Your task to perform on an android device: choose inbox layout in the gmail app Image 0: 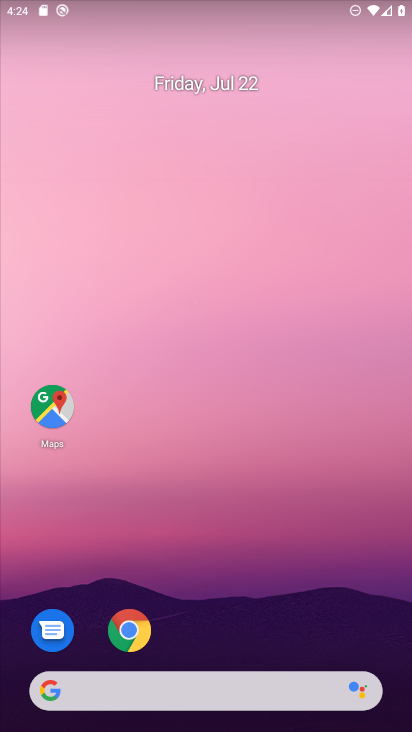
Step 0: drag from (211, 627) to (180, 38)
Your task to perform on an android device: choose inbox layout in the gmail app Image 1: 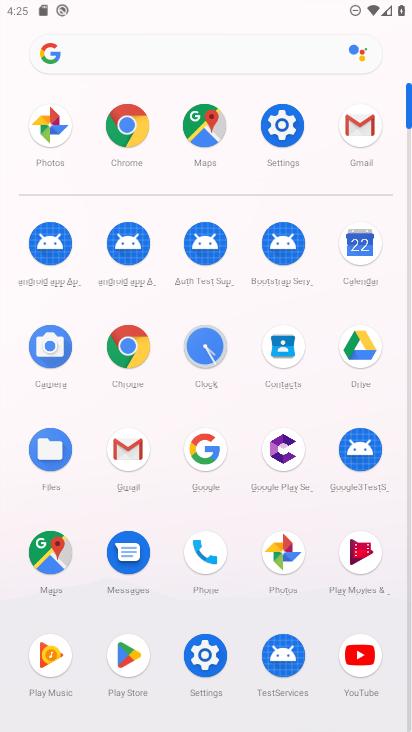
Step 1: click (128, 464)
Your task to perform on an android device: choose inbox layout in the gmail app Image 2: 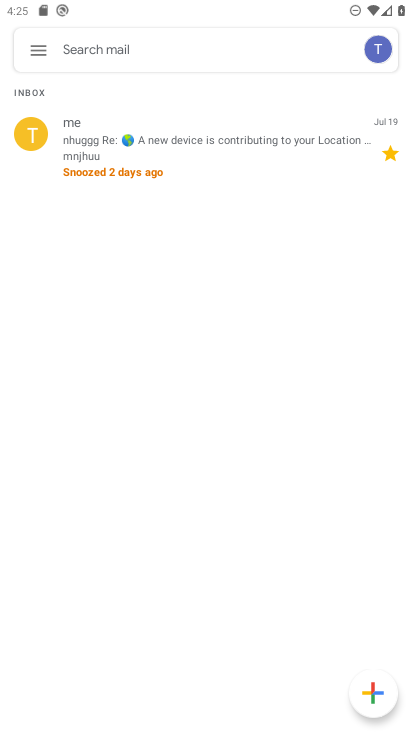
Step 2: click (44, 47)
Your task to perform on an android device: choose inbox layout in the gmail app Image 3: 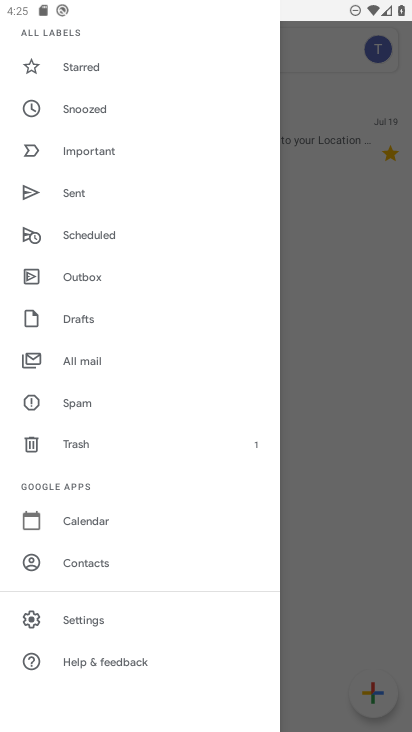
Step 3: click (92, 638)
Your task to perform on an android device: choose inbox layout in the gmail app Image 4: 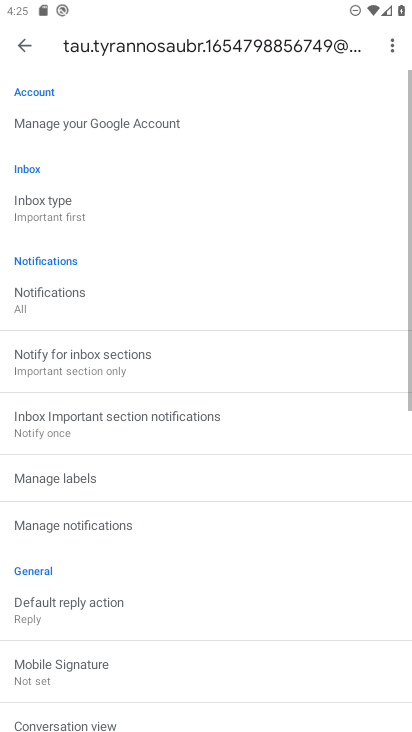
Step 4: click (57, 211)
Your task to perform on an android device: choose inbox layout in the gmail app Image 5: 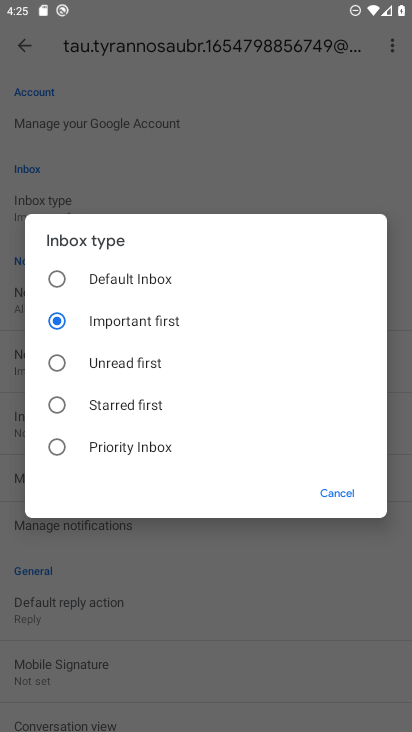
Step 5: click (98, 276)
Your task to perform on an android device: choose inbox layout in the gmail app Image 6: 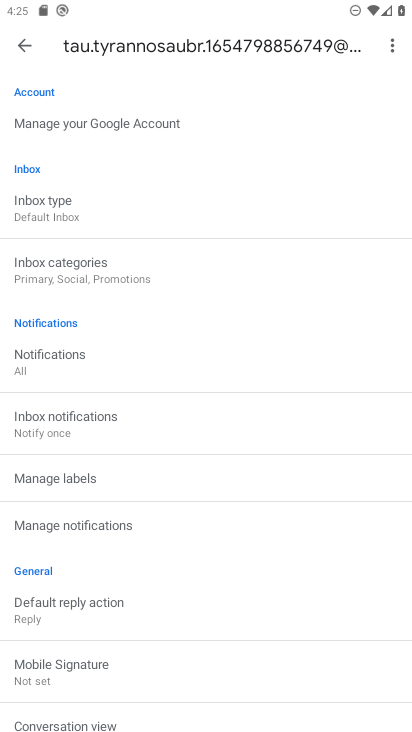
Step 6: task complete